Your task to perform on an android device: turn notification dots on Image 0: 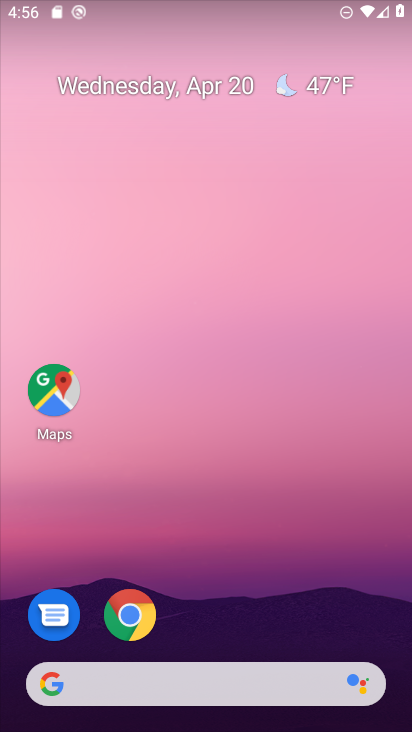
Step 0: drag from (268, 591) to (278, 159)
Your task to perform on an android device: turn notification dots on Image 1: 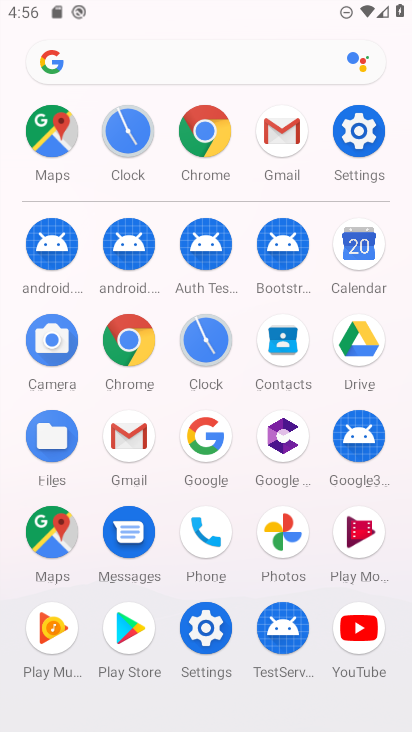
Step 1: click (355, 132)
Your task to perform on an android device: turn notification dots on Image 2: 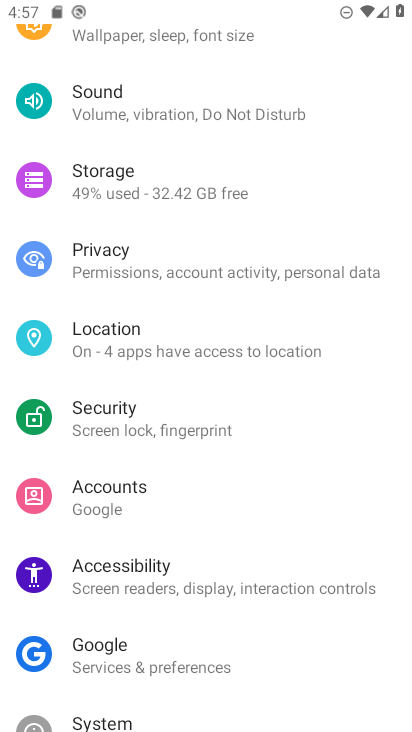
Step 2: drag from (262, 152) to (200, 505)
Your task to perform on an android device: turn notification dots on Image 3: 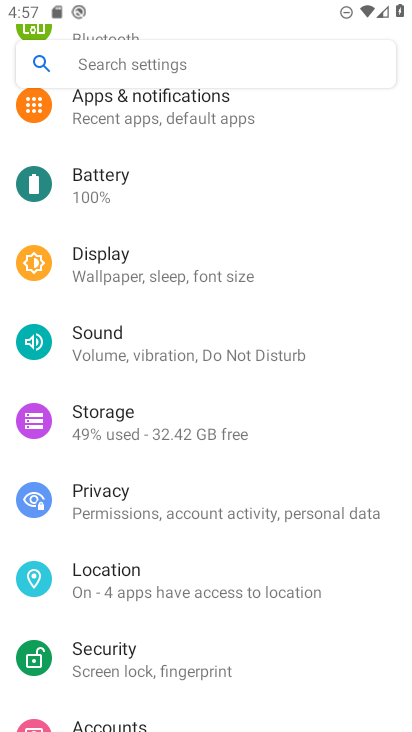
Step 3: click (164, 100)
Your task to perform on an android device: turn notification dots on Image 4: 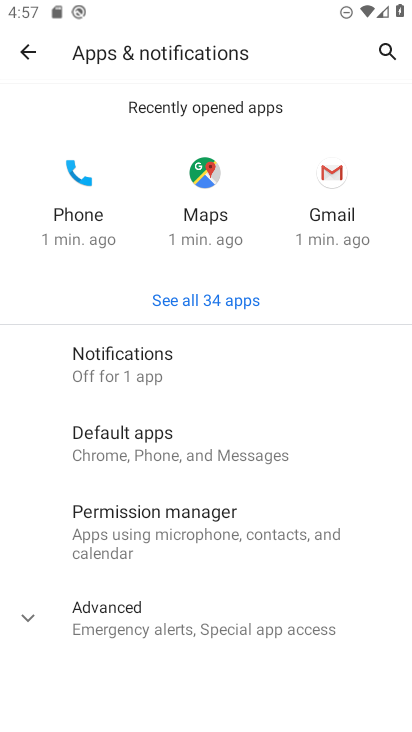
Step 4: click (189, 353)
Your task to perform on an android device: turn notification dots on Image 5: 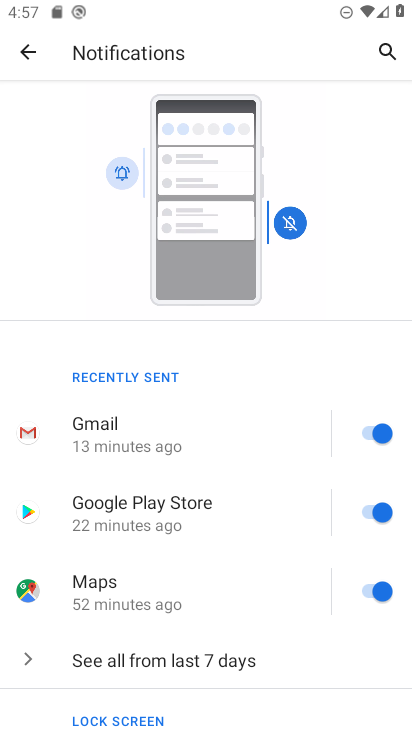
Step 5: drag from (252, 630) to (278, 342)
Your task to perform on an android device: turn notification dots on Image 6: 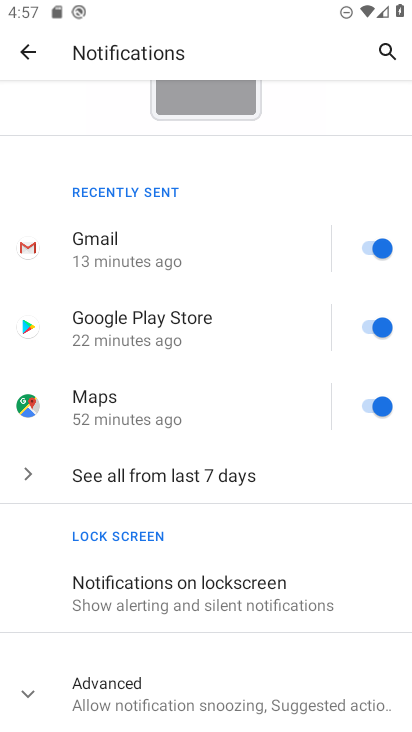
Step 6: click (269, 698)
Your task to perform on an android device: turn notification dots on Image 7: 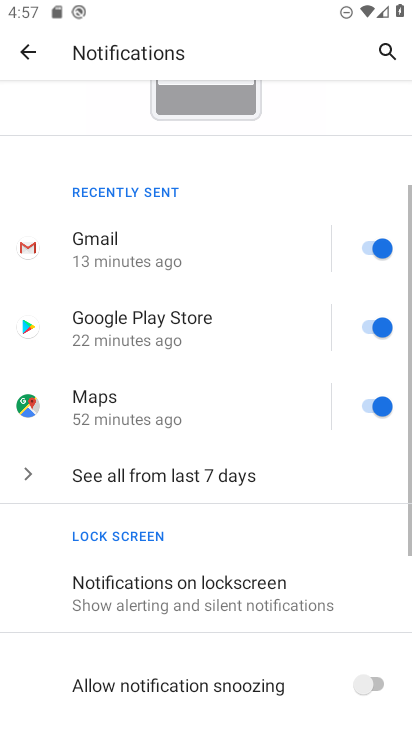
Step 7: task complete